Your task to perform on an android device: turn off location Image 0: 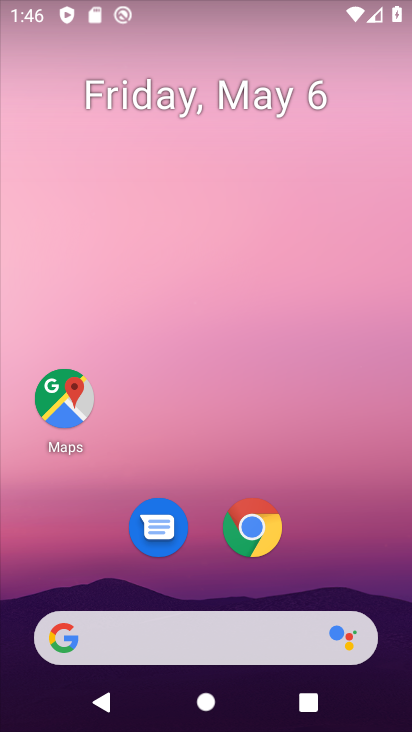
Step 0: click (58, 385)
Your task to perform on an android device: turn off location Image 1: 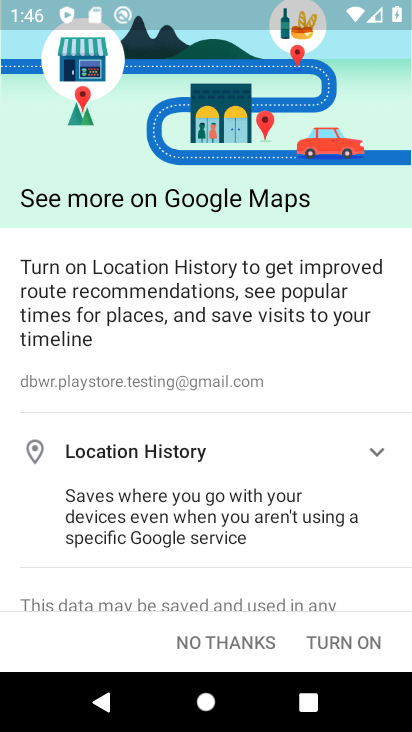
Step 1: press home button
Your task to perform on an android device: turn off location Image 2: 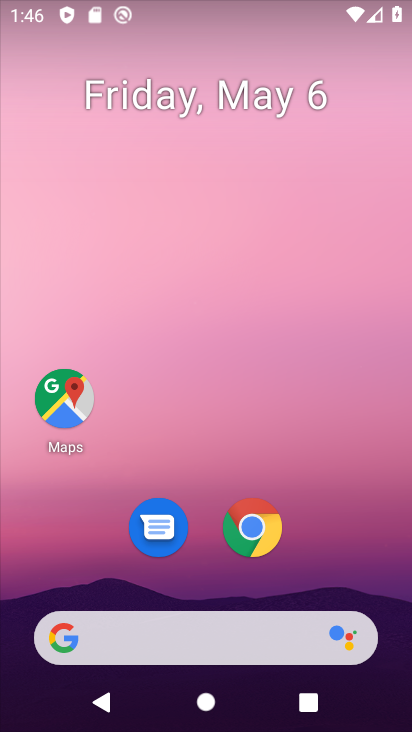
Step 2: drag from (292, 550) to (214, 4)
Your task to perform on an android device: turn off location Image 3: 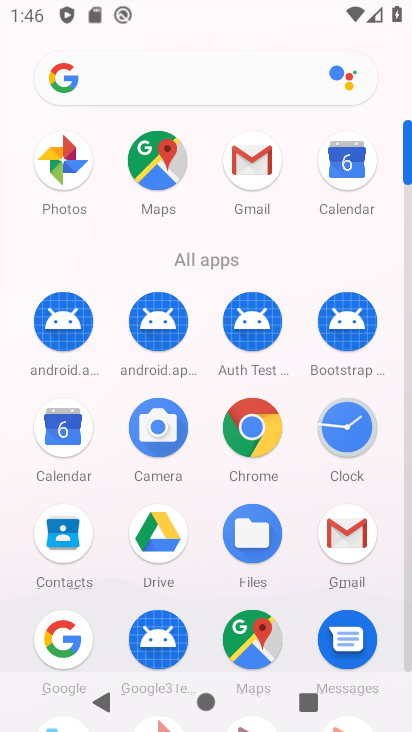
Step 3: drag from (189, 288) to (195, 39)
Your task to perform on an android device: turn off location Image 4: 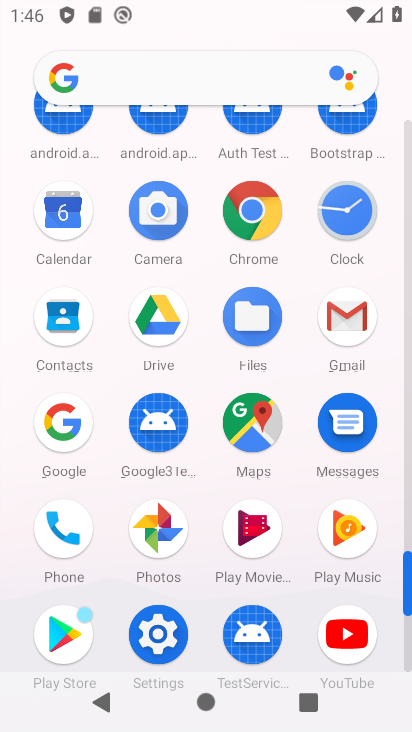
Step 4: click (154, 639)
Your task to perform on an android device: turn off location Image 5: 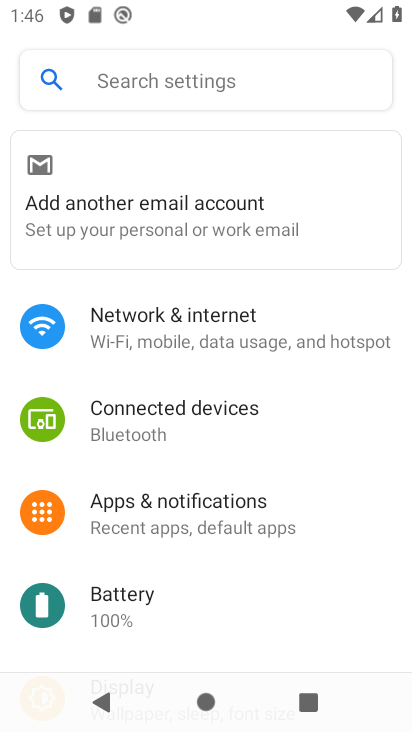
Step 5: drag from (275, 623) to (305, 189)
Your task to perform on an android device: turn off location Image 6: 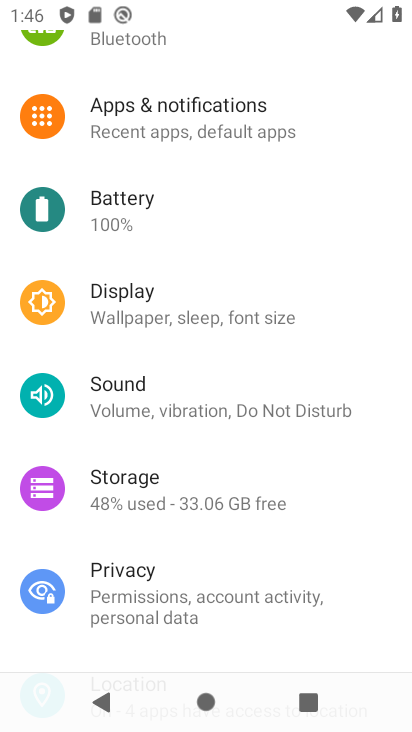
Step 6: drag from (362, 587) to (357, 261)
Your task to perform on an android device: turn off location Image 7: 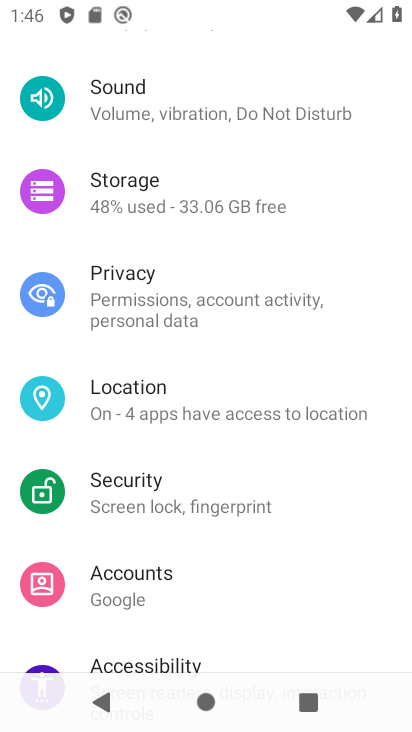
Step 7: click (115, 403)
Your task to perform on an android device: turn off location Image 8: 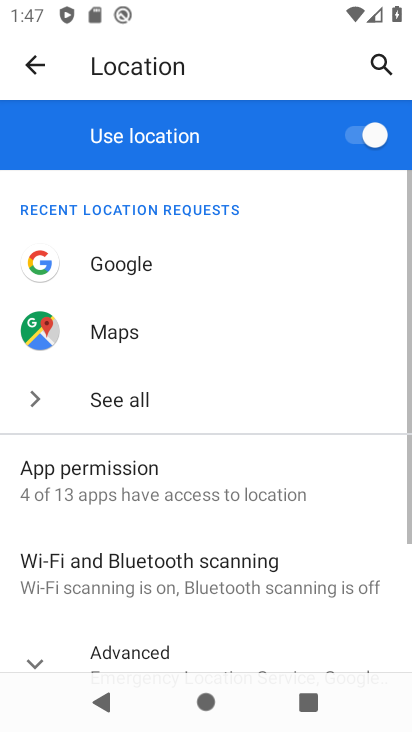
Step 8: click (353, 132)
Your task to perform on an android device: turn off location Image 9: 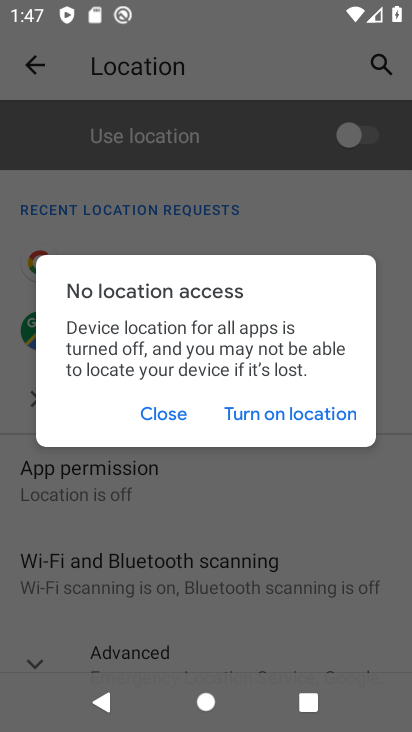
Step 9: click (161, 420)
Your task to perform on an android device: turn off location Image 10: 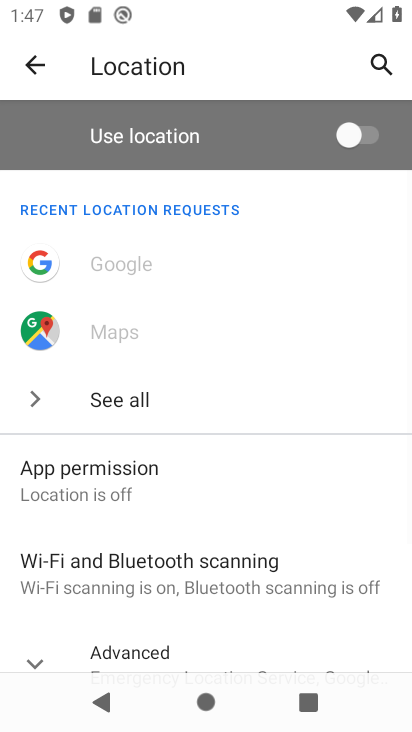
Step 10: task complete